Your task to perform on an android device: Show me productivity apps on the Play Store Image 0: 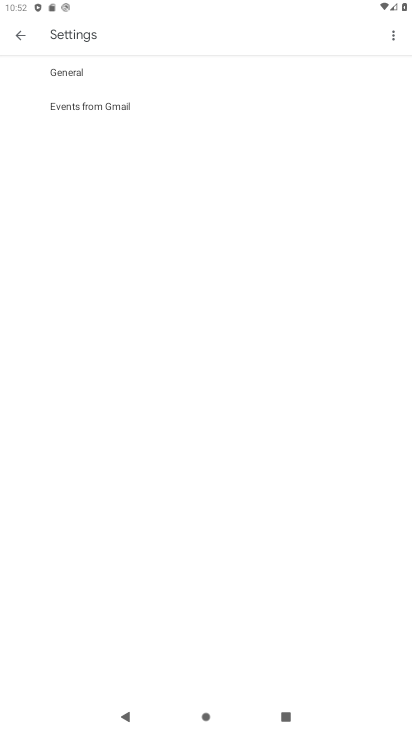
Step 0: press home button
Your task to perform on an android device: Show me productivity apps on the Play Store Image 1: 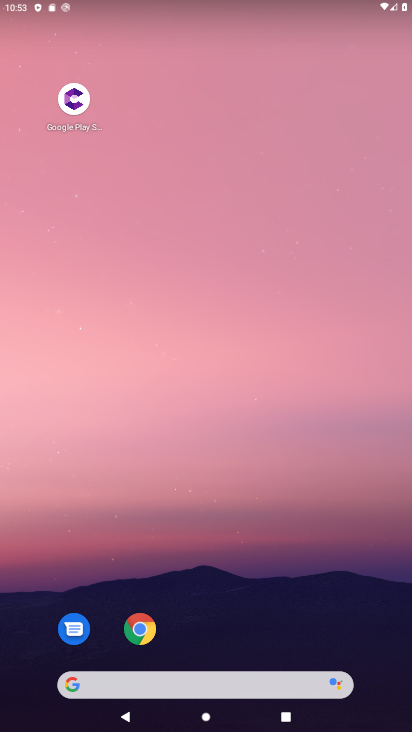
Step 1: drag from (271, 636) to (393, 163)
Your task to perform on an android device: Show me productivity apps on the Play Store Image 2: 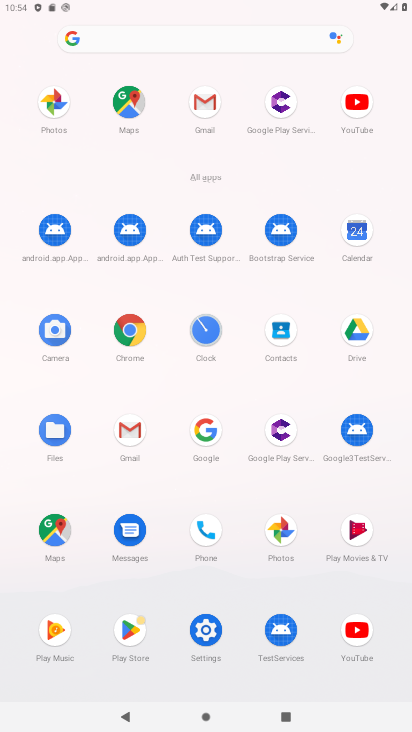
Step 2: click (144, 630)
Your task to perform on an android device: Show me productivity apps on the Play Store Image 3: 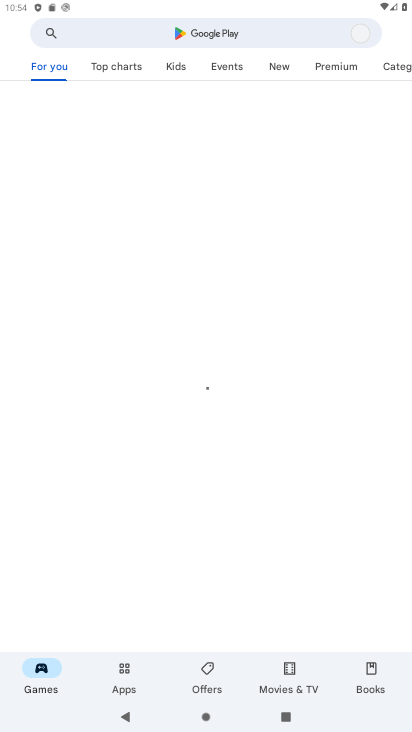
Step 3: click (136, 34)
Your task to perform on an android device: Show me productivity apps on the Play Store Image 4: 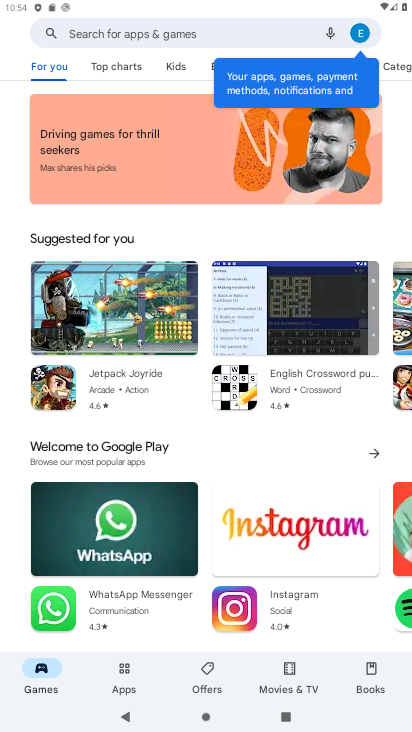
Step 4: click (176, 39)
Your task to perform on an android device: Show me productivity apps on the Play Store Image 5: 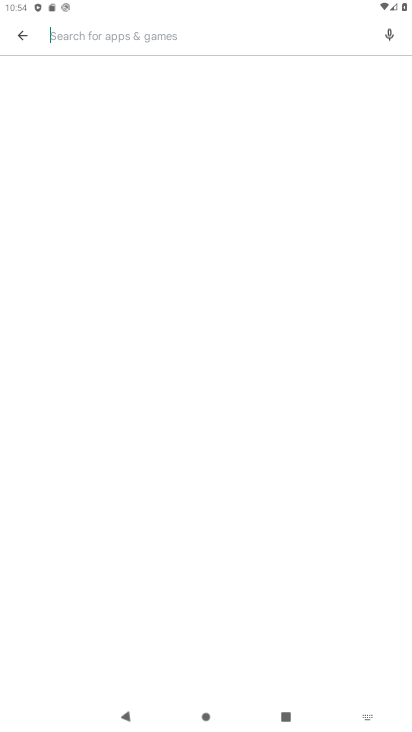
Step 5: click (176, 28)
Your task to perform on an android device: Show me productivity apps on the Play Store Image 6: 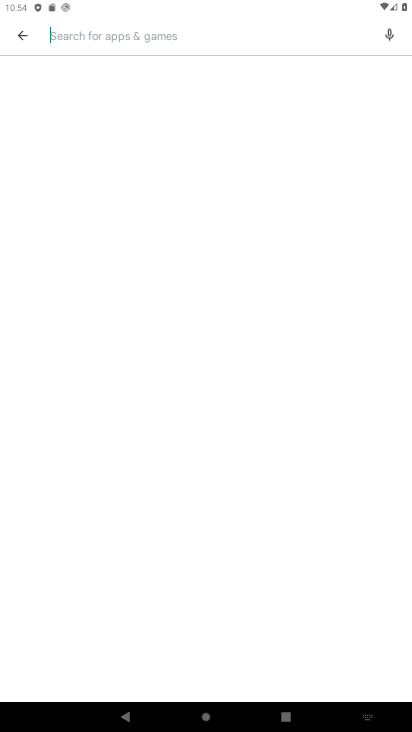
Step 6: type " productivity apps"
Your task to perform on an android device: Show me productivity apps on the Play Store Image 7: 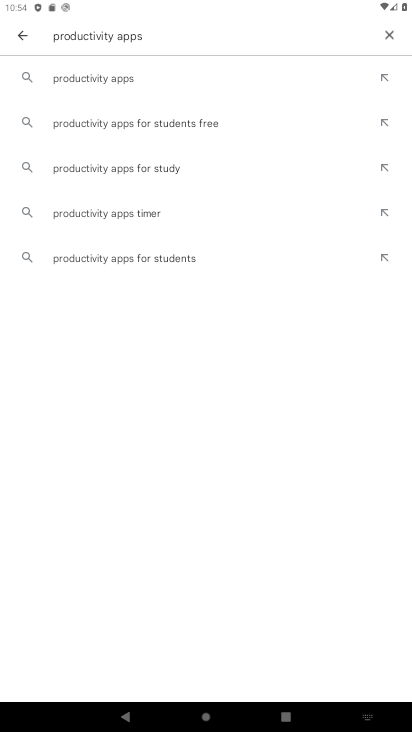
Step 7: click (65, 79)
Your task to perform on an android device: Show me productivity apps on the Play Store Image 8: 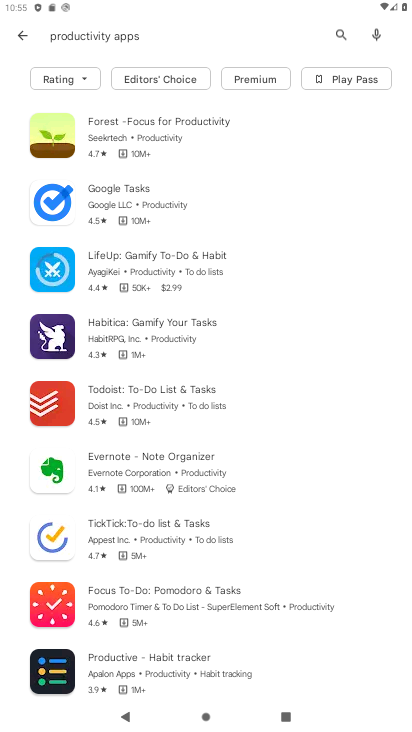
Step 8: task complete